Your task to perform on an android device: check storage Image 0: 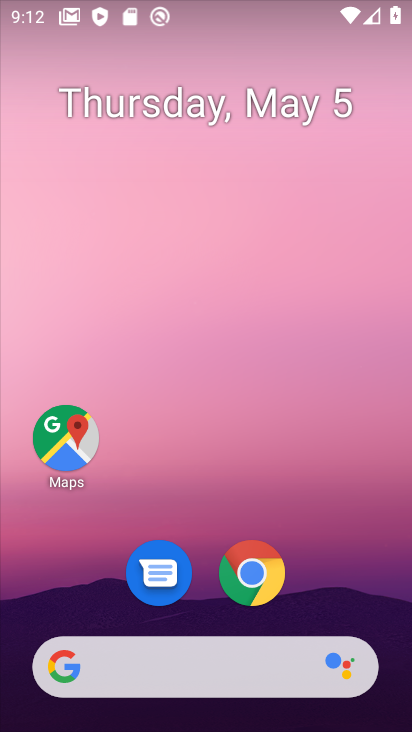
Step 0: drag from (227, 613) to (384, 7)
Your task to perform on an android device: check storage Image 1: 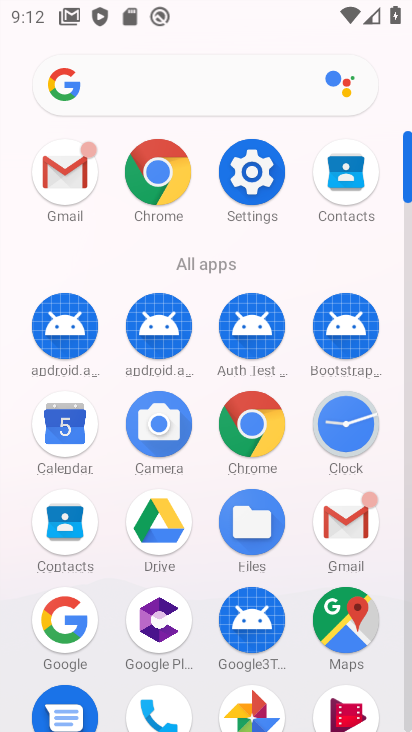
Step 1: click (248, 164)
Your task to perform on an android device: check storage Image 2: 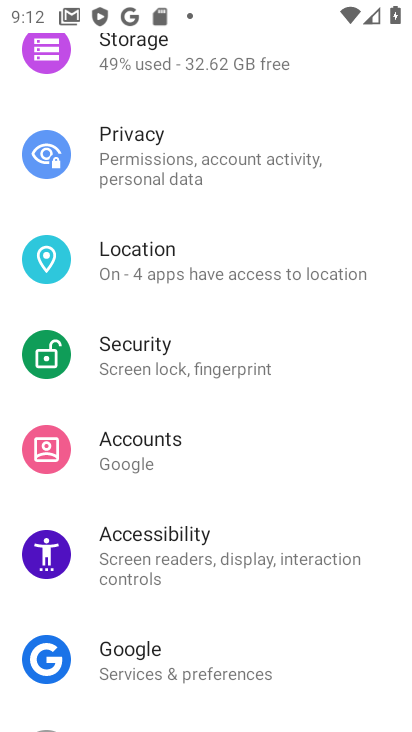
Step 2: drag from (176, 640) to (342, 110)
Your task to perform on an android device: check storage Image 3: 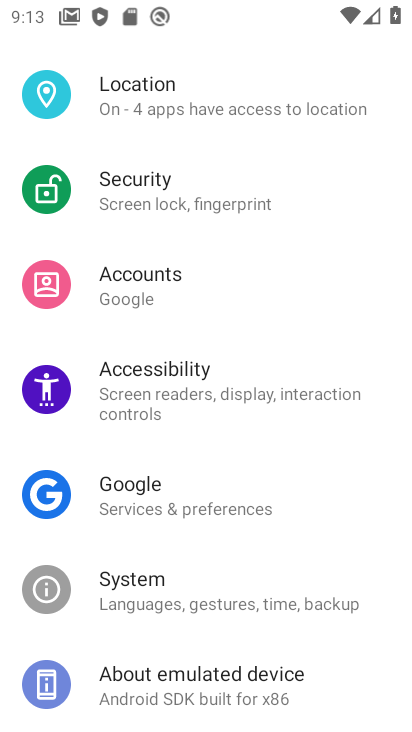
Step 3: drag from (276, 146) to (187, 719)
Your task to perform on an android device: check storage Image 4: 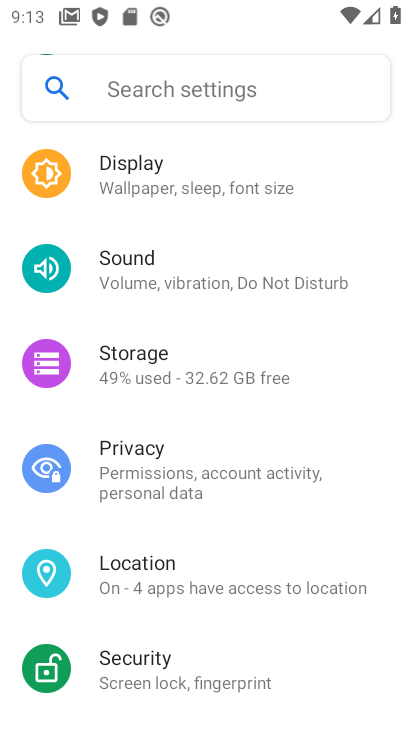
Step 4: drag from (269, 214) to (201, 659)
Your task to perform on an android device: check storage Image 5: 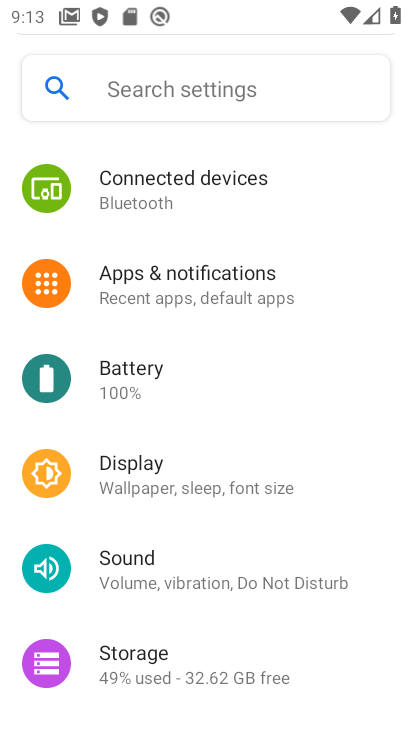
Step 5: drag from (252, 242) to (185, 700)
Your task to perform on an android device: check storage Image 6: 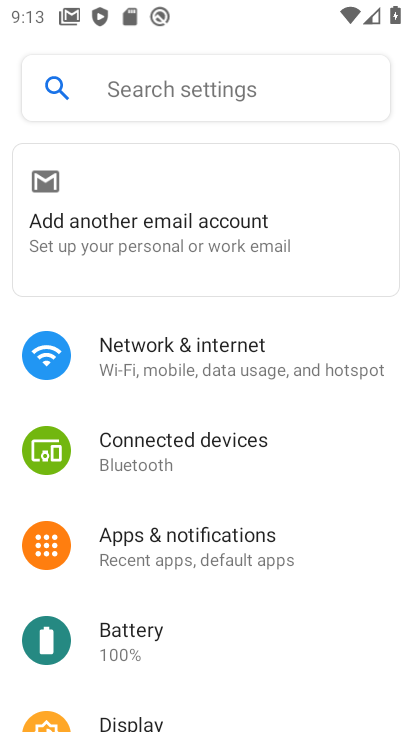
Step 6: drag from (184, 622) to (353, 103)
Your task to perform on an android device: check storage Image 7: 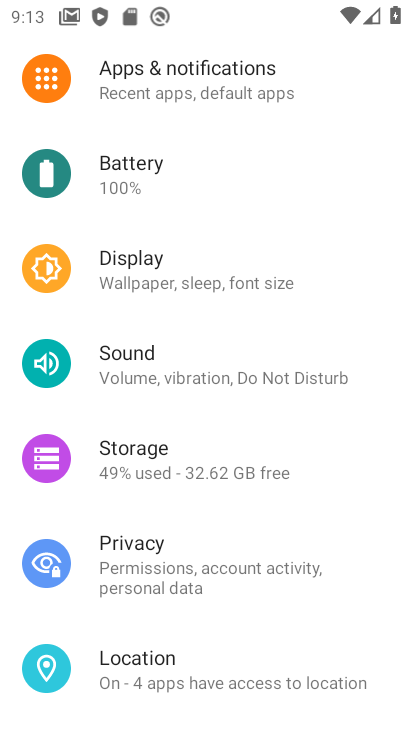
Step 7: click (163, 463)
Your task to perform on an android device: check storage Image 8: 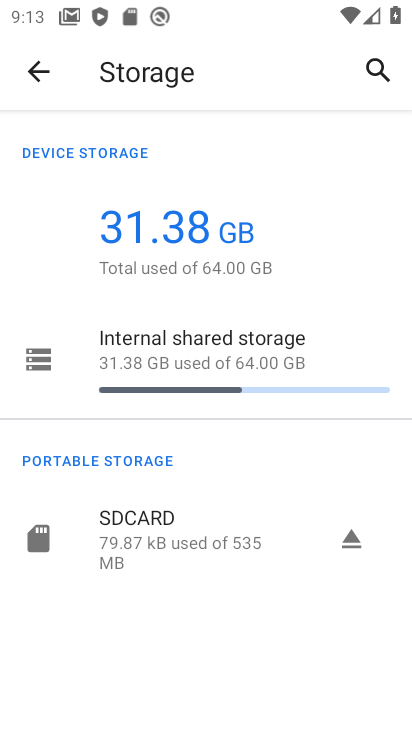
Step 8: task complete